Your task to perform on an android device: see creations saved in the google photos Image 0: 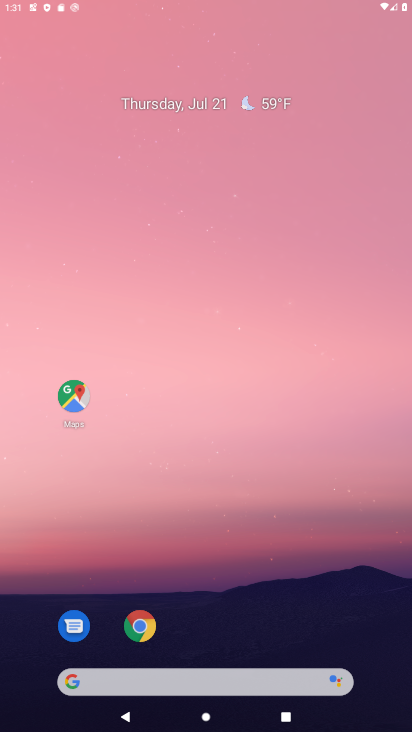
Step 0: press home button
Your task to perform on an android device: see creations saved in the google photos Image 1: 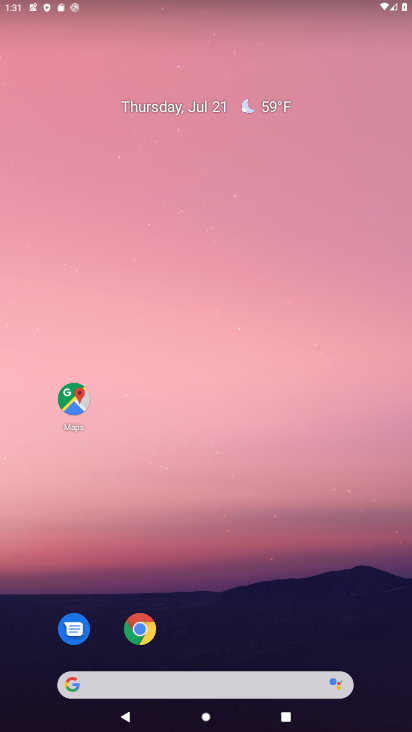
Step 1: drag from (384, 676) to (353, 53)
Your task to perform on an android device: see creations saved in the google photos Image 2: 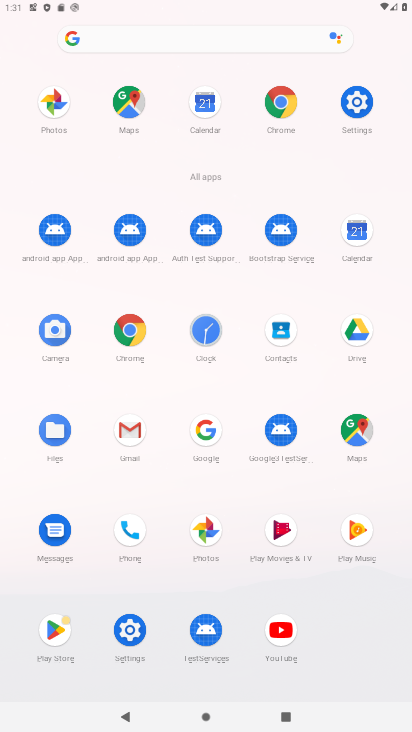
Step 2: click (205, 531)
Your task to perform on an android device: see creations saved in the google photos Image 3: 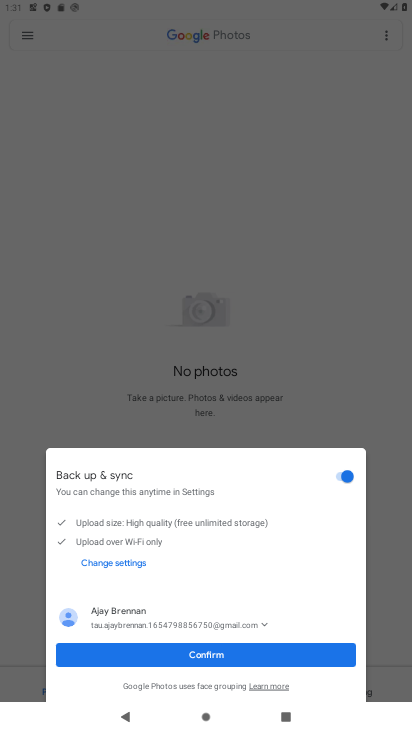
Step 3: click (205, 657)
Your task to perform on an android device: see creations saved in the google photos Image 4: 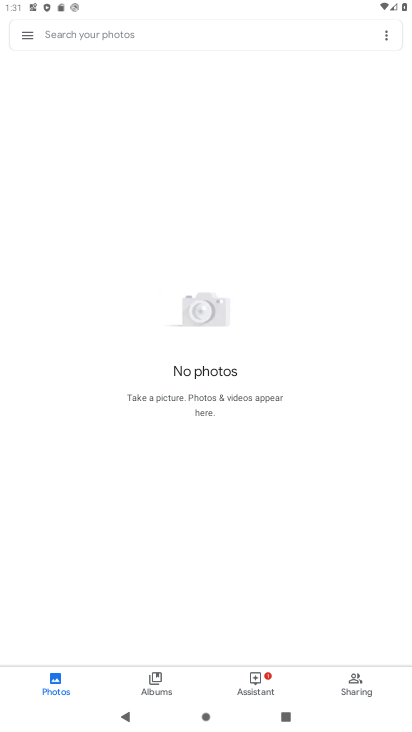
Step 4: click (23, 37)
Your task to perform on an android device: see creations saved in the google photos Image 5: 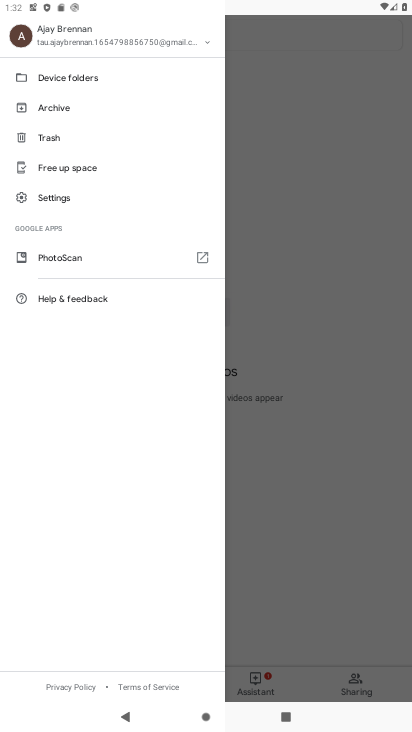
Step 5: click (288, 261)
Your task to perform on an android device: see creations saved in the google photos Image 6: 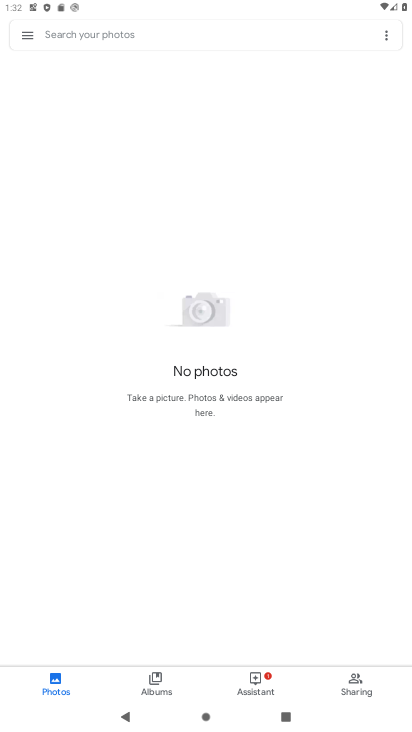
Step 6: task complete